Your task to perform on an android device: change the clock style Image 0: 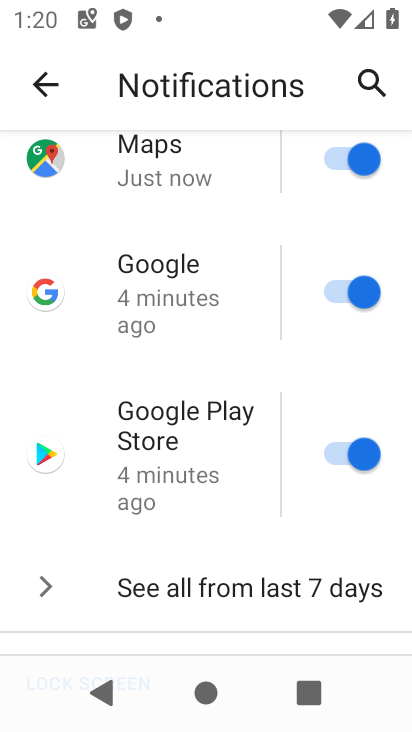
Step 0: press home button
Your task to perform on an android device: change the clock style Image 1: 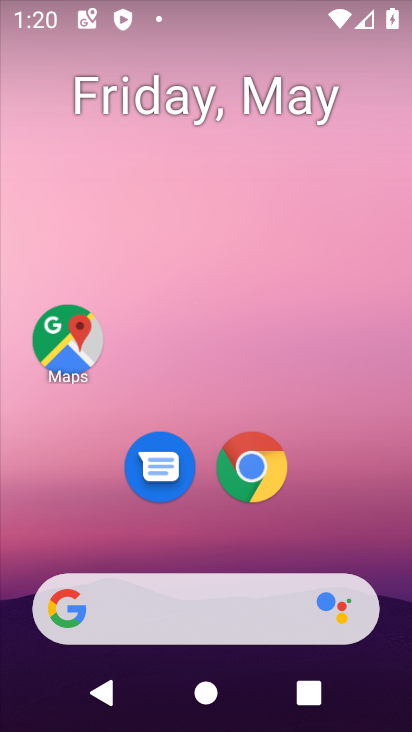
Step 1: drag from (376, 432) to (343, 45)
Your task to perform on an android device: change the clock style Image 2: 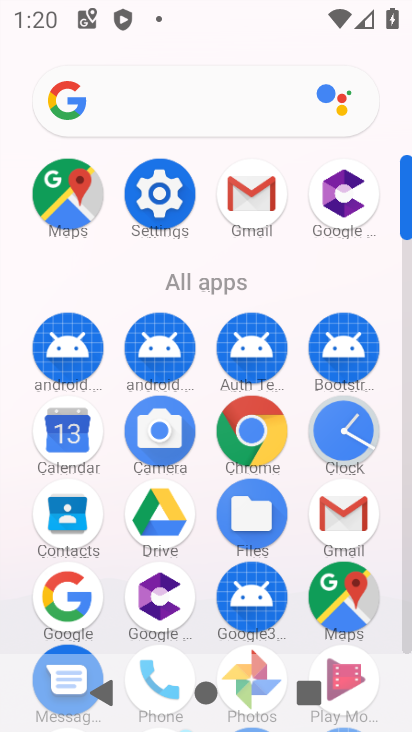
Step 2: click (333, 438)
Your task to perform on an android device: change the clock style Image 3: 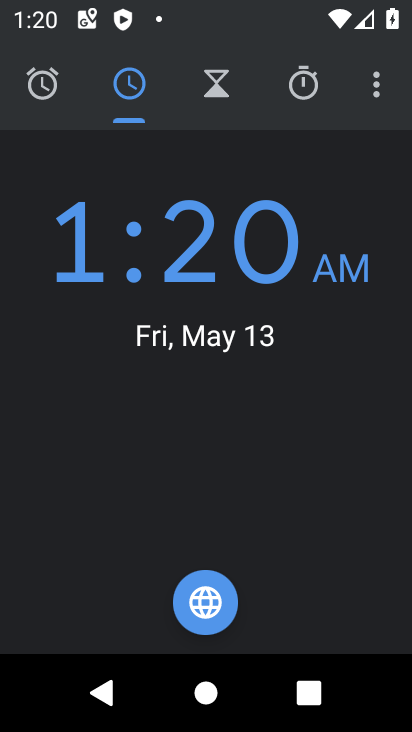
Step 3: click (378, 100)
Your task to perform on an android device: change the clock style Image 4: 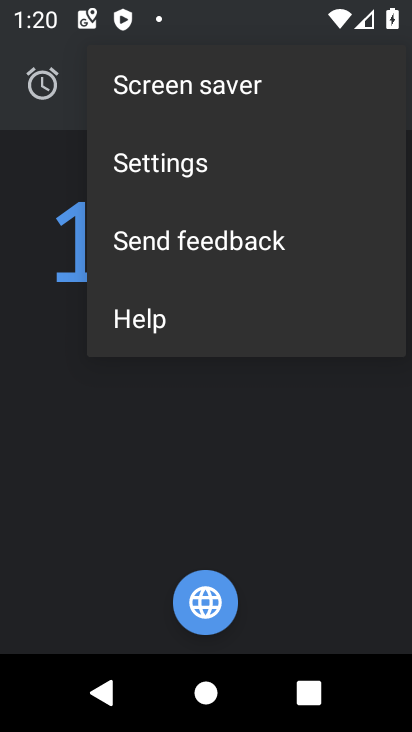
Step 4: click (175, 159)
Your task to perform on an android device: change the clock style Image 5: 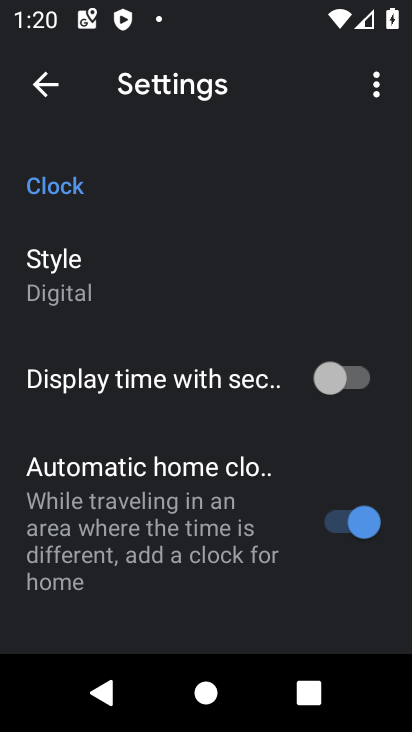
Step 5: click (57, 279)
Your task to perform on an android device: change the clock style Image 6: 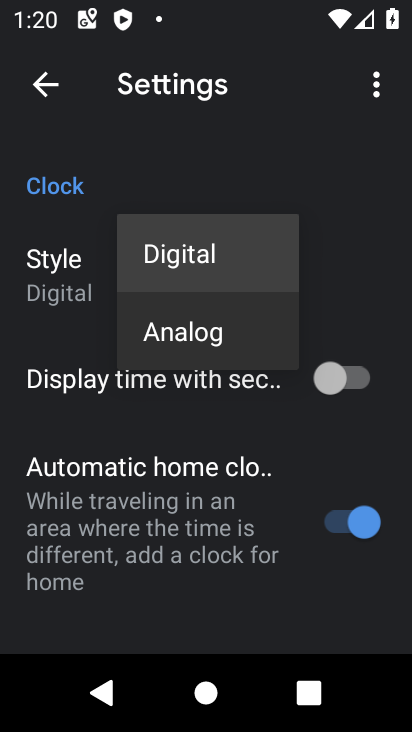
Step 6: click (181, 342)
Your task to perform on an android device: change the clock style Image 7: 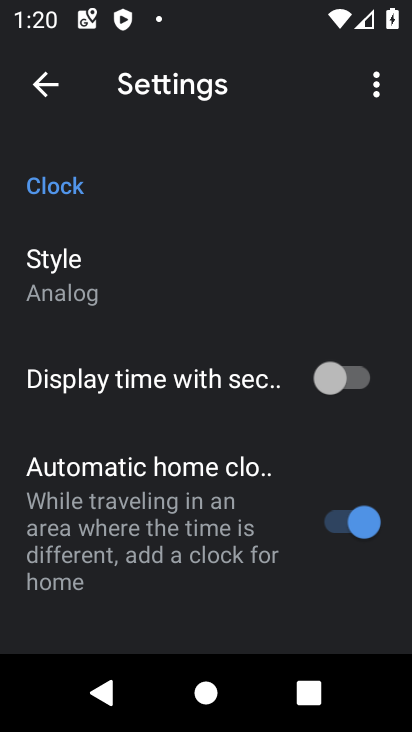
Step 7: task complete